Your task to perform on an android device: toggle notification dots Image 0: 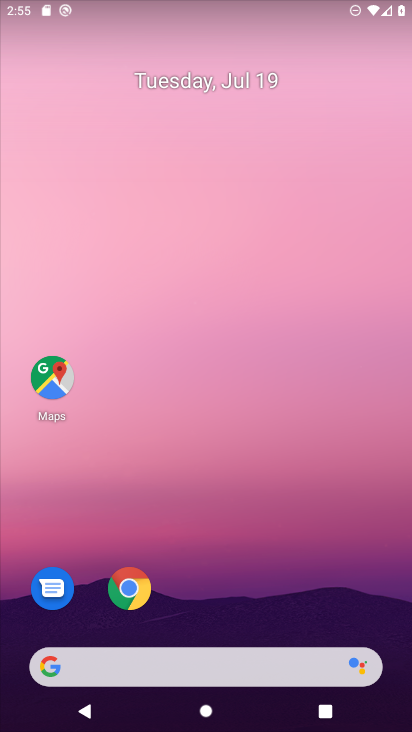
Step 0: drag from (190, 486) to (169, 77)
Your task to perform on an android device: toggle notification dots Image 1: 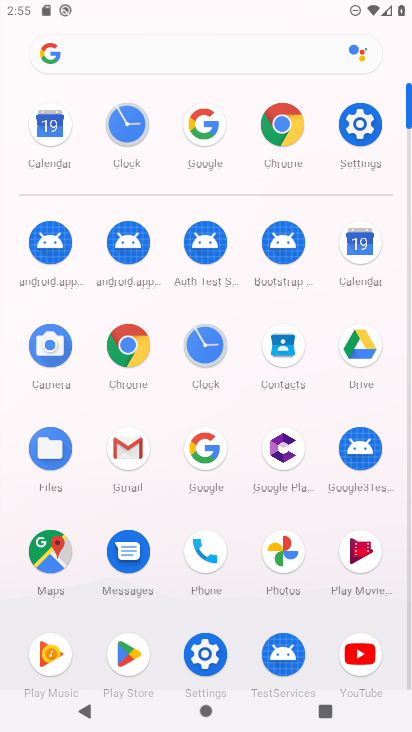
Step 1: click (361, 132)
Your task to perform on an android device: toggle notification dots Image 2: 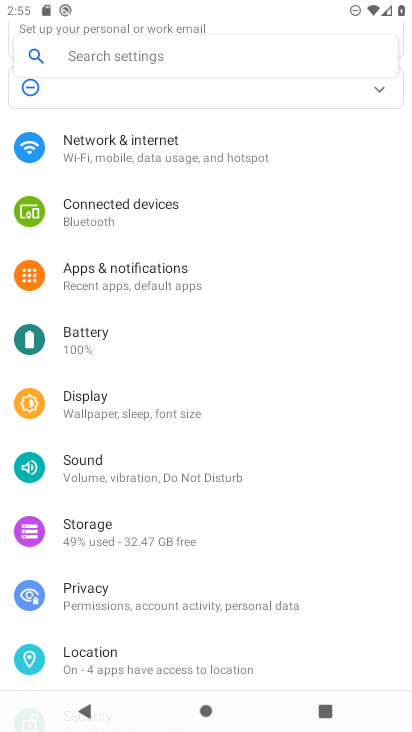
Step 2: click (109, 284)
Your task to perform on an android device: toggle notification dots Image 3: 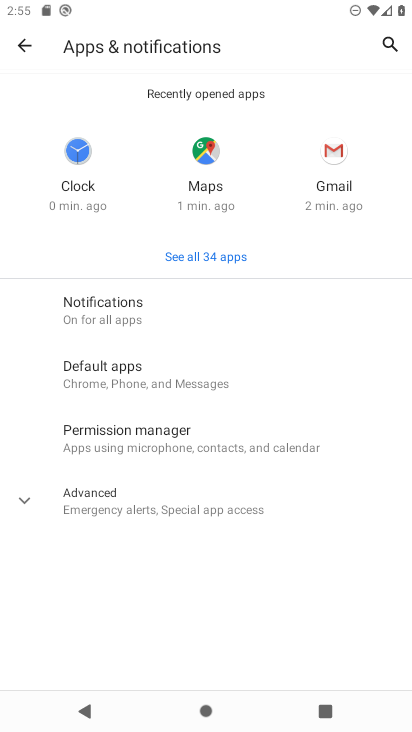
Step 3: click (117, 319)
Your task to perform on an android device: toggle notification dots Image 4: 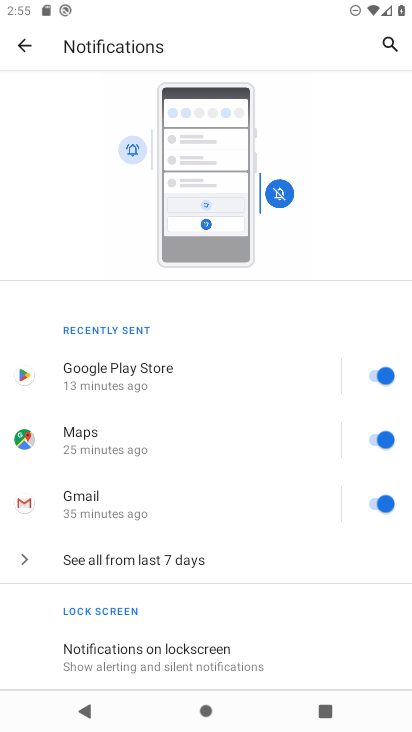
Step 4: drag from (143, 572) to (204, 267)
Your task to perform on an android device: toggle notification dots Image 5: 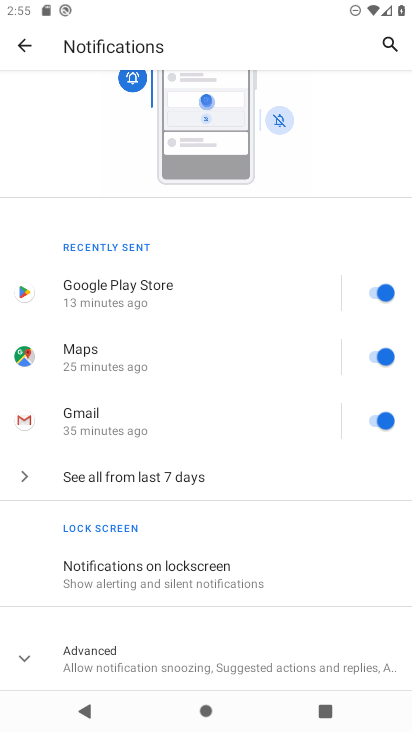
Step 5: click (113, 650)
Your task to perform on an android device: toggle notification dots Image 6: 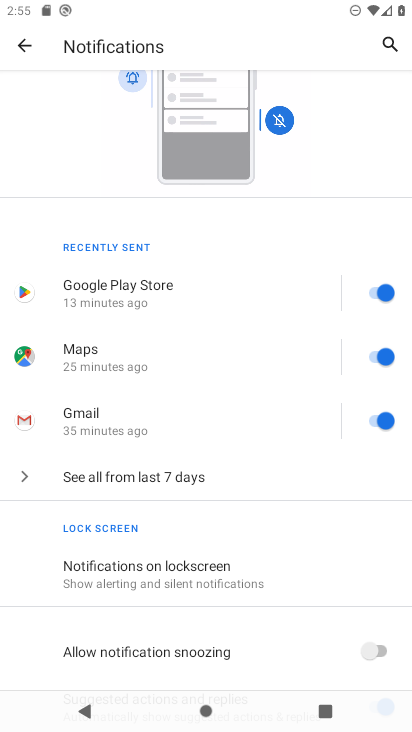
Step 6: drag from (145, 602) to (151, 437)
Your task to perform on an android device: toggle notification dots Image 7: 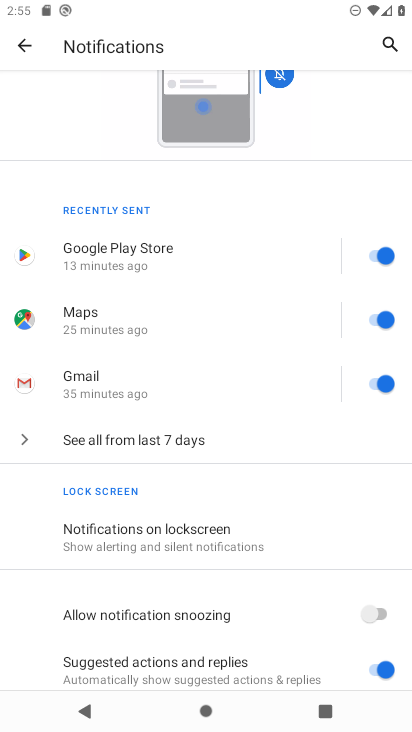
Step 7: drag from (284, 569) to (277, 387)
Your task to perform on an android device: toggle notification dots Image 8: 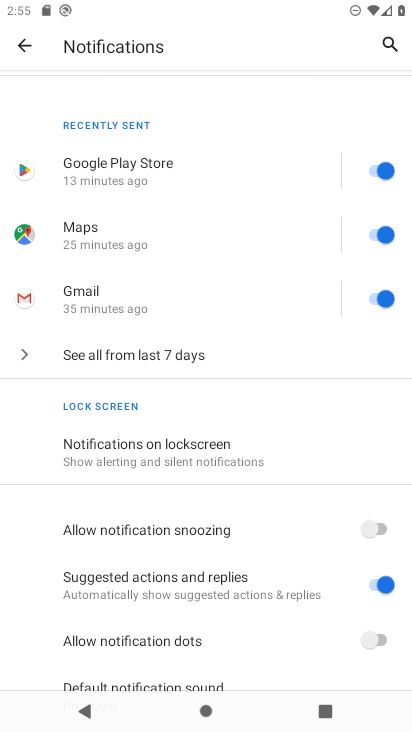
Step 8: click (389, 640)
Your task to perform on an android device: toggle notification dots Image 9: 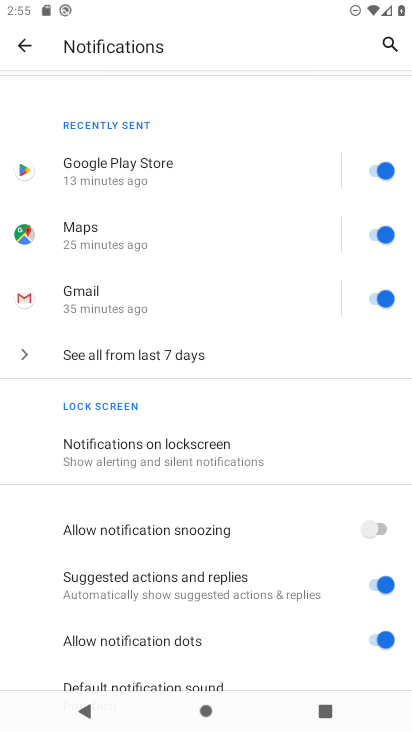
Step 9: task complete